Your task to perform on an android device: turn off location Image 0: 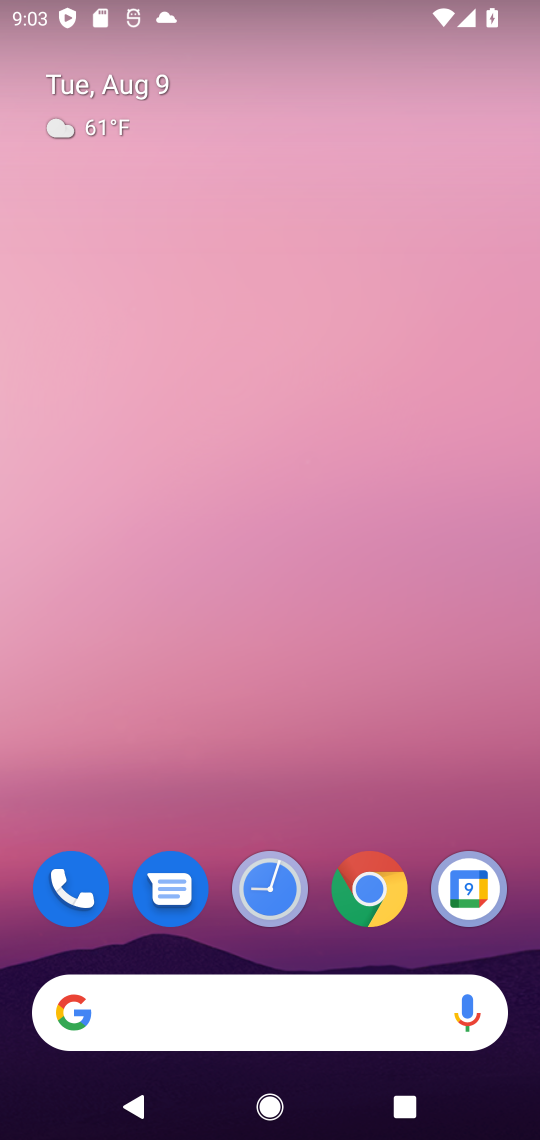
Step 0: drag from (351, 606) to (445, 140)
Your task to perform on an android device: turn off location Image 1: 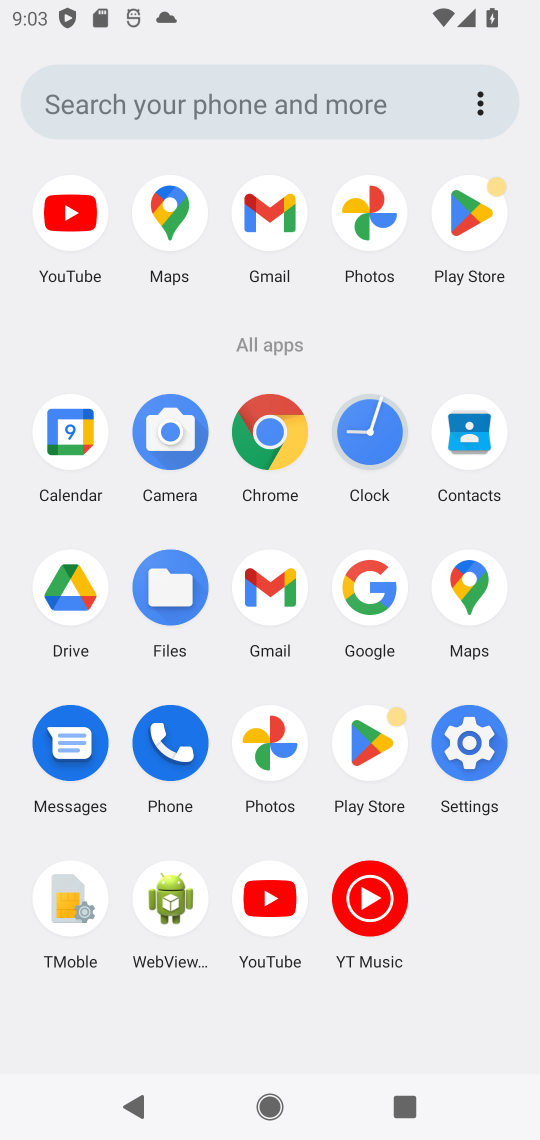
Step 1: click (463, 744)
Your task to perform on an android device: turn off location Image 2: 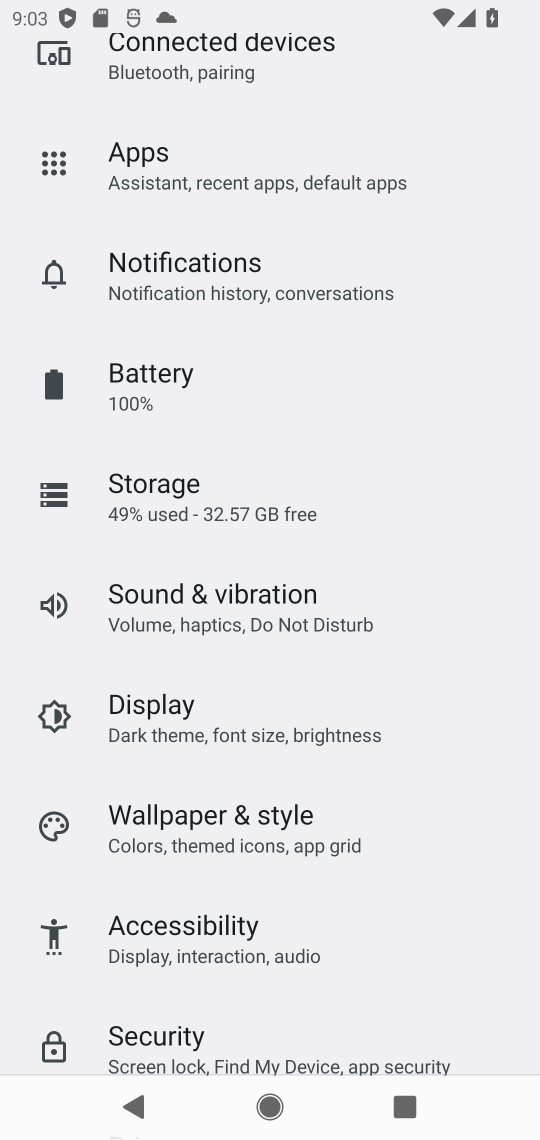
Step 2: drag from (204, 927) to (322, 393)
Your task to perform on an android device: turn off location Image 3: 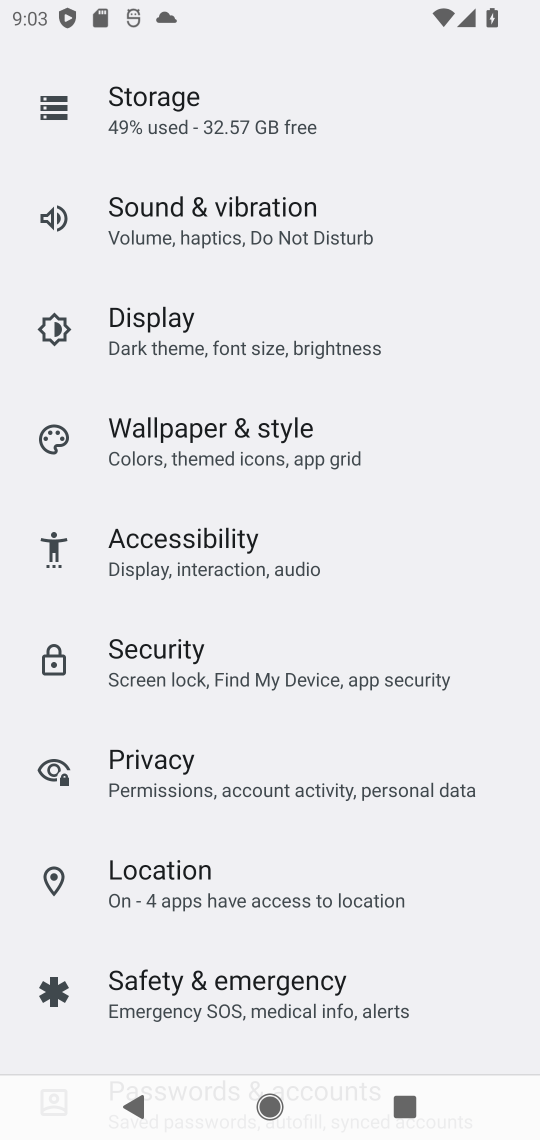
Step 3: click (185, 893)
Your task to perform on an android device: turn off location Image 4: 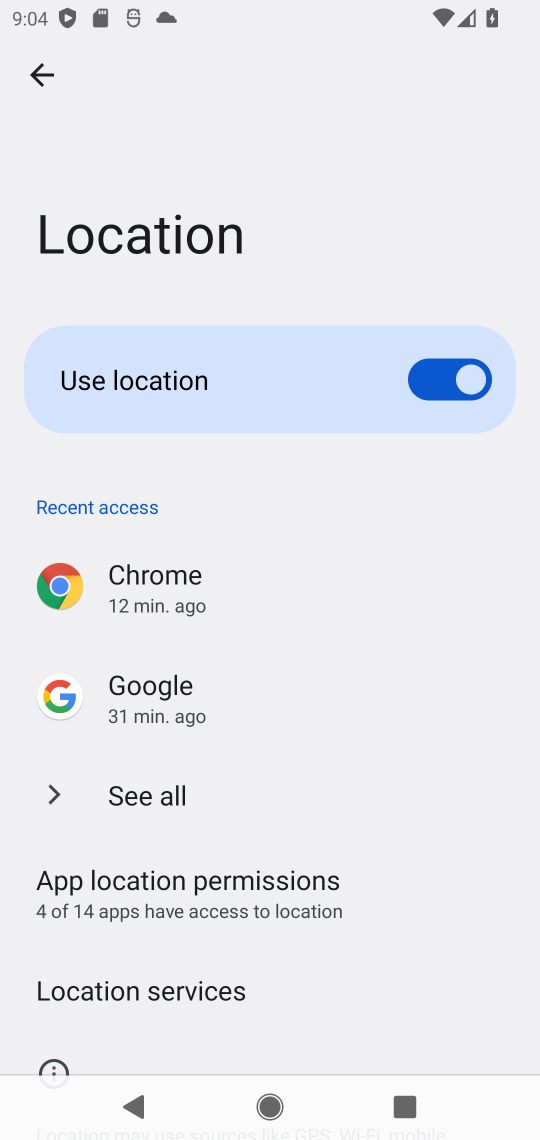
Step 4: click (453, 399)
Your task to perform on an android device: turn off location Image 5: 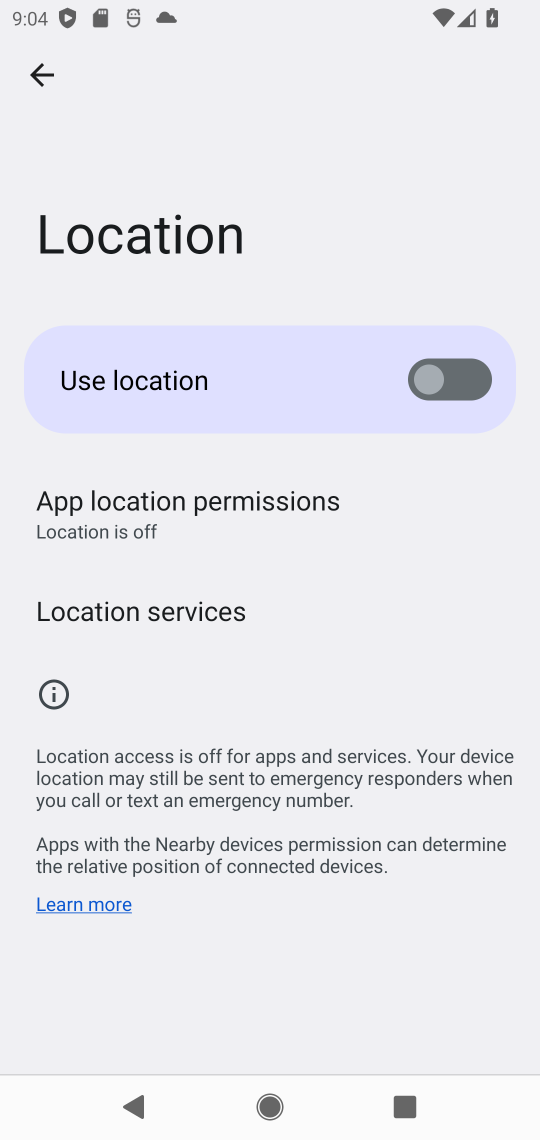
Step 5: task complete